Your task to perform on an android device: see tabs open on other devices in the chrome app Image 0: 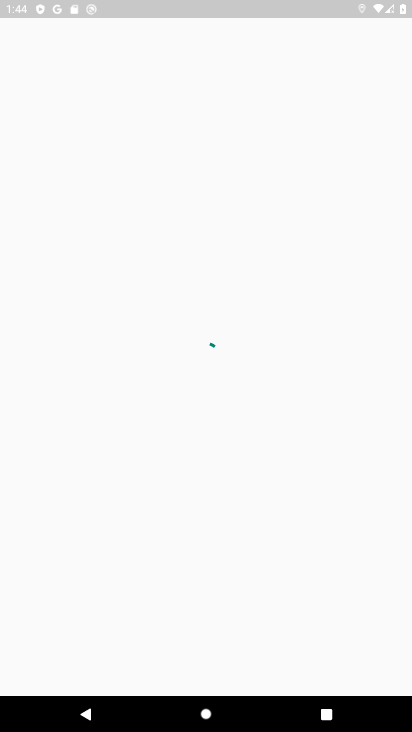
Step 0: press home button
Your task to perform on an android device: see tabs open on other devices in the chrome app Image 1: 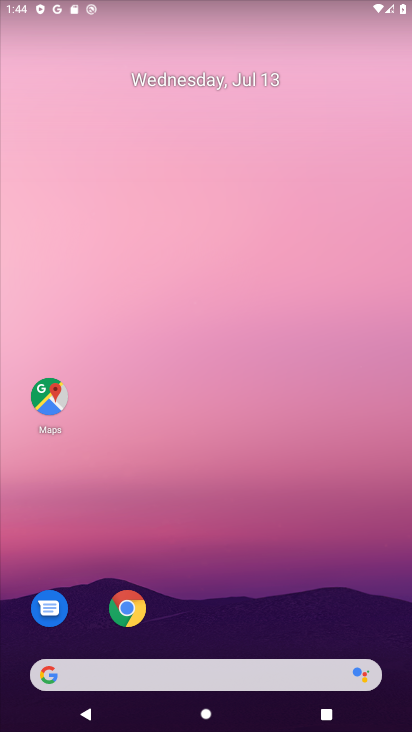
Step 1: click (136, 602)
Your task to perform on an android device: see tabs open on other devices in the chrome app Image 2: 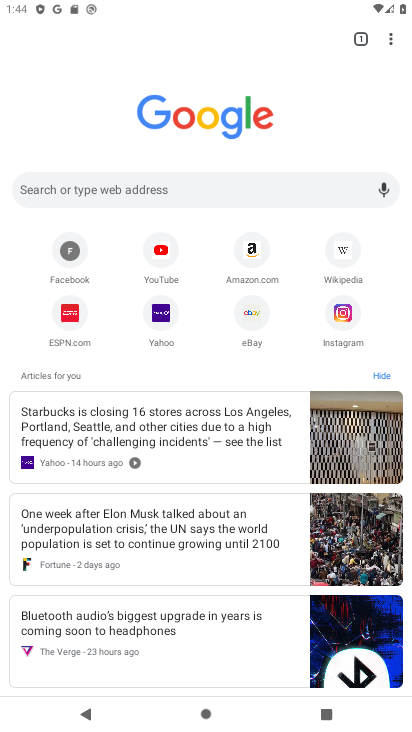
Step 2: click (399, 46)
Your task to perform on an android device: see tabs open on other devices in the chrome app Image 3: 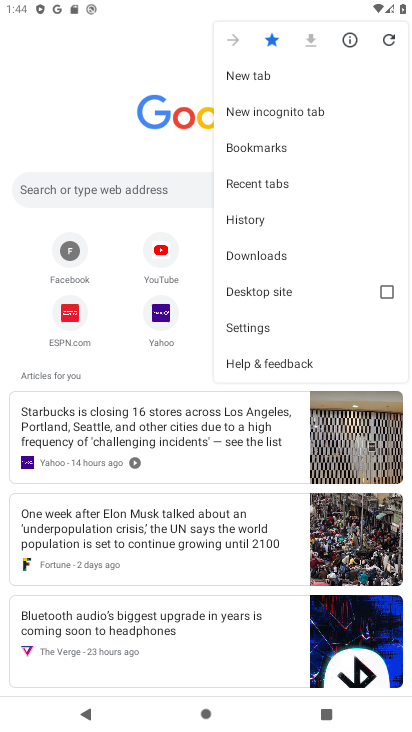
Step 3: click (245, 183)
Your task to perform on an android device: see tabs open on other devices in the chrome app Image 4: 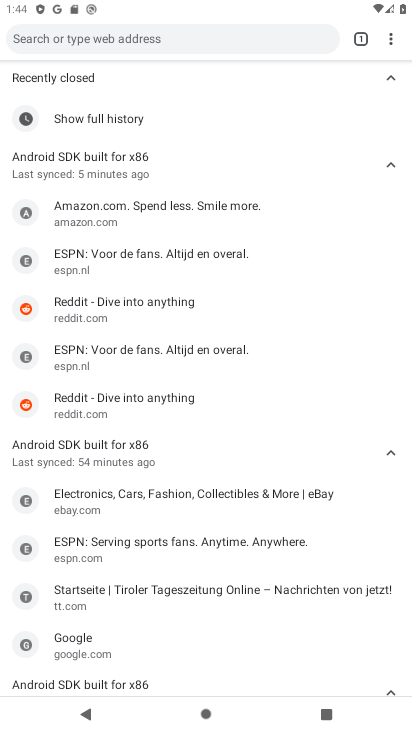
Step 4: task complete